Your task to perform on an android device: turn off airplane mode Image 0: 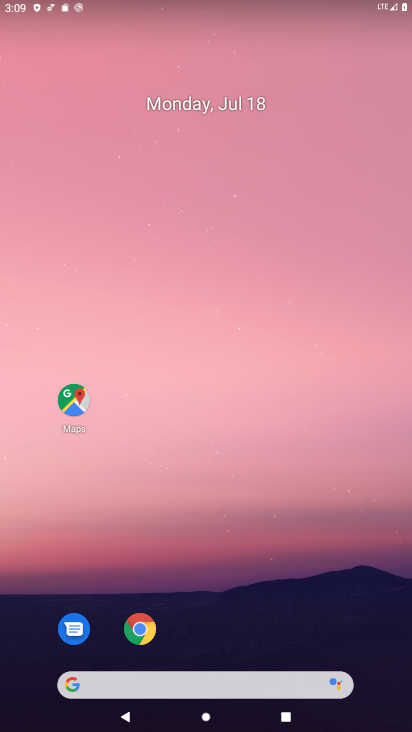
Step 0: click (325, 380)
Your task to perform on an android device: turn off airplane mode Image 1: 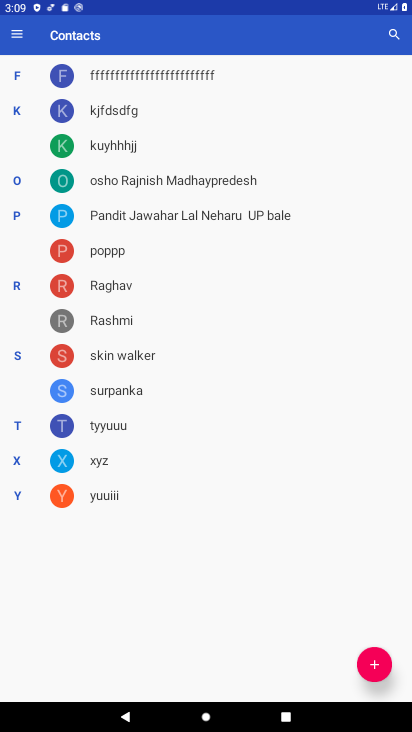
Step 1: press home button
Your task to perform on an android device: turn off airplane mode Image 2: 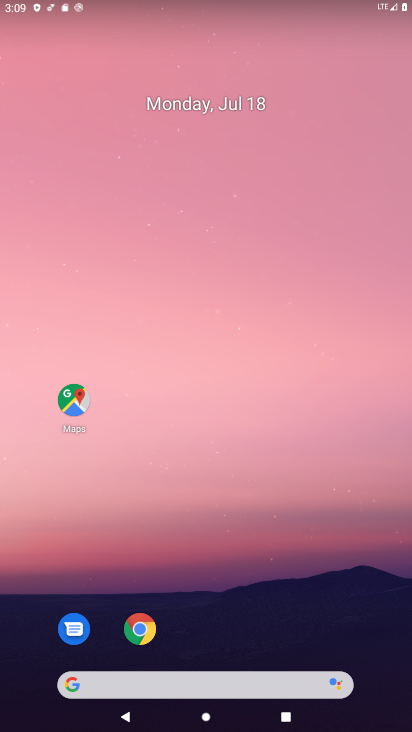
Step 2: drag from (267, 629) to (296, 227)
Your task to perform on an android device: turn off airplane mode Image 3: 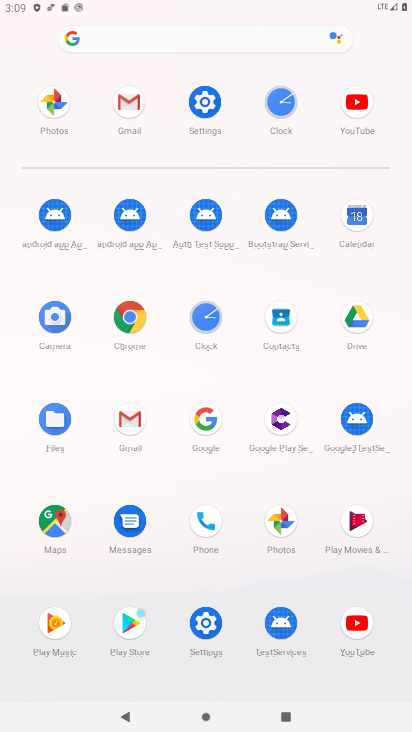
Step 3: click (206, 627)
Your task to perform on an android device: turn off airplane mode Image 4: 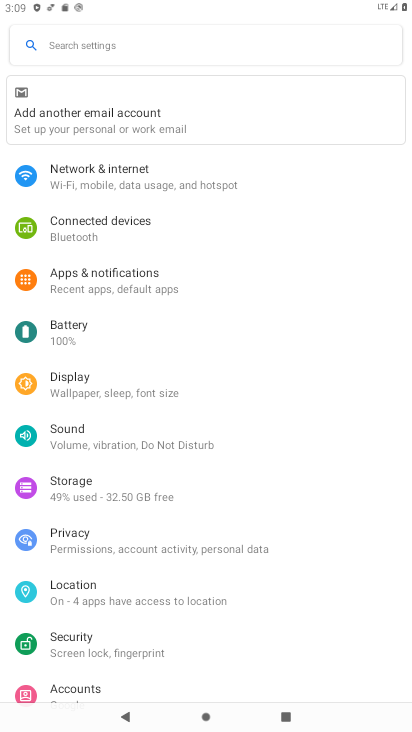
Step 4: click (121, 175)
Your task to perform on an android device: turn off airplane mode Image 5: 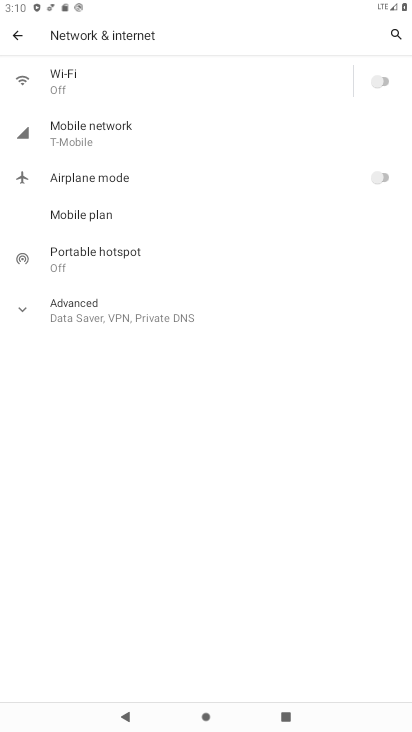
Step 5: task complete